Your task to perform on an android device: Find coffee shops on Maps Image 0: 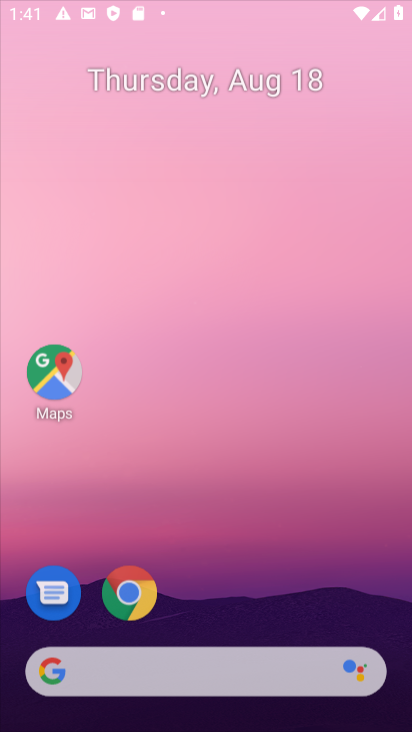
Step 0: press home button
Your task to perform on an android device: Find coffee shops on Maps Image 1: 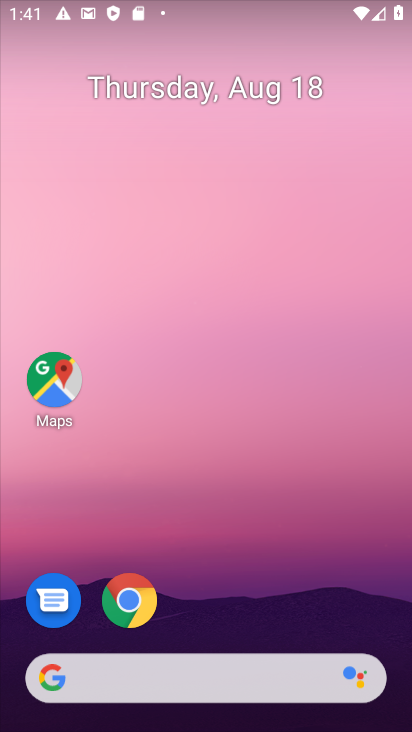
Step 1: click (53, 371)
Your task to perform on an android device: Find coffee shops on Maps Image 2: 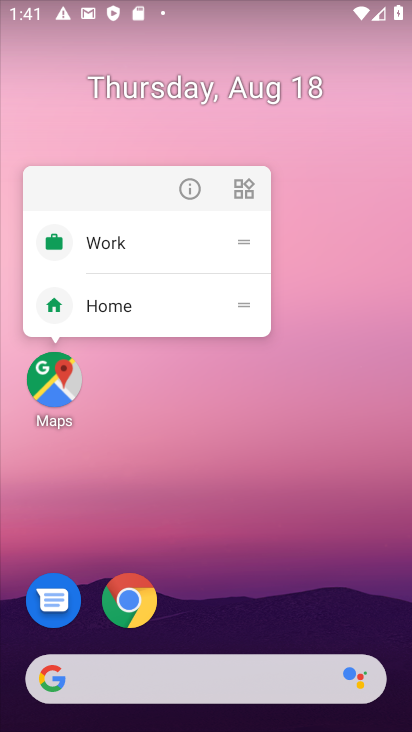
Step 2: click (53, 396)
Your task to perform on an android device: Find coffee shops on Maps Image 3: 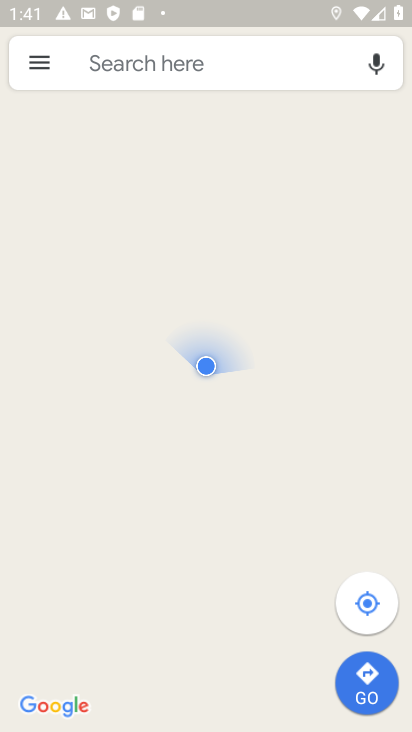
Step 3: click (141, 70)
Your task to perform on an android device: Find coffee shops on Maps Image 4: 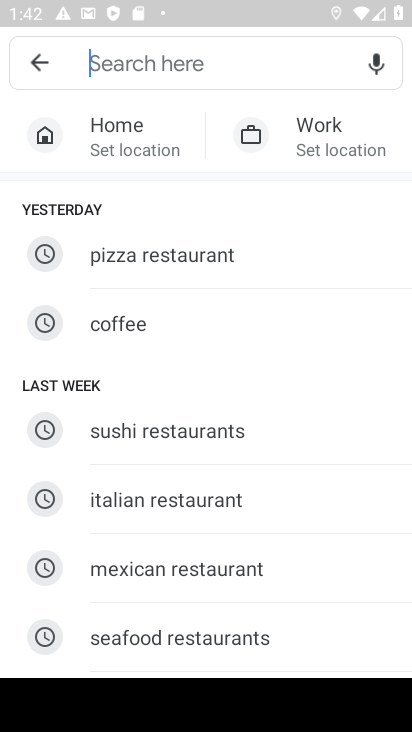
Step 4: type "coffee shops"
Your task to perform on an android device: Find coffee shops on Maps Image 5: 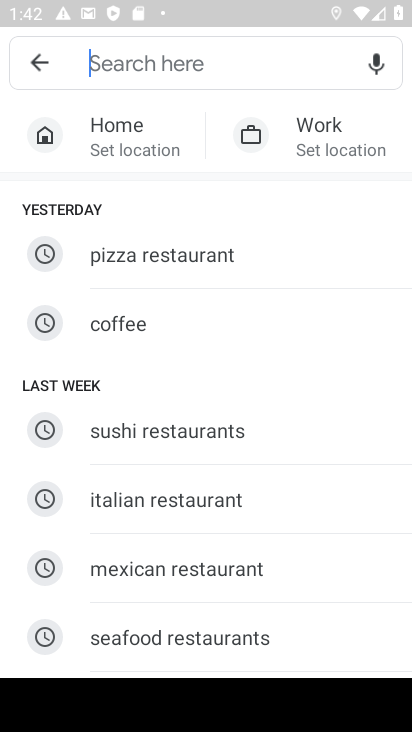
Step 5: click (130, 62)
Your task to perform on an android device: Find coffee shops on Maps Image 6: 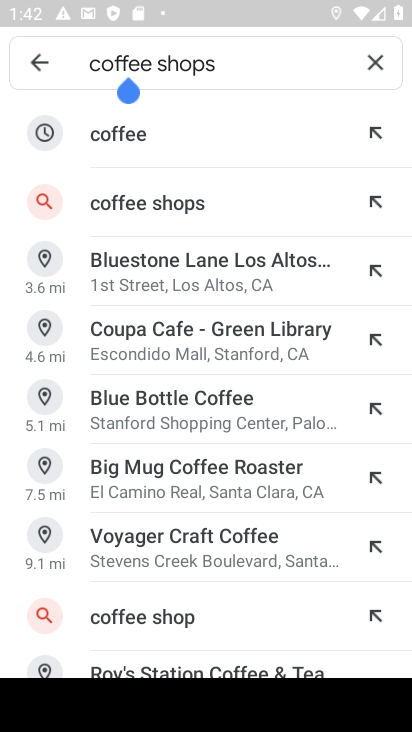
Step 6: click (174, 200)
Your task to perform on an android device: Find coffee shops on Maps Image 7: 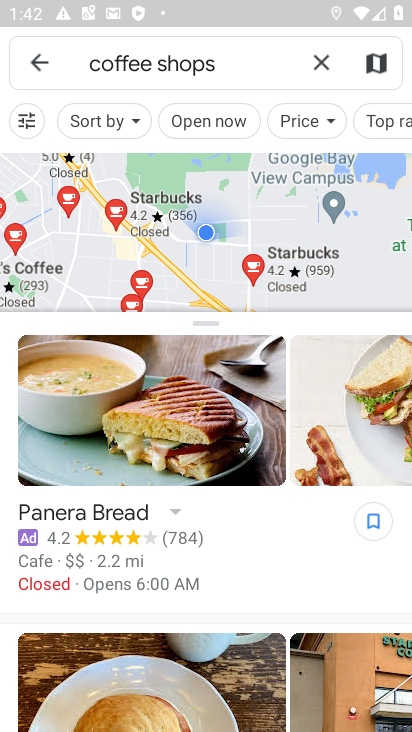
Step 7: task complete